Your task to perform on an android device: check storage Image 0: 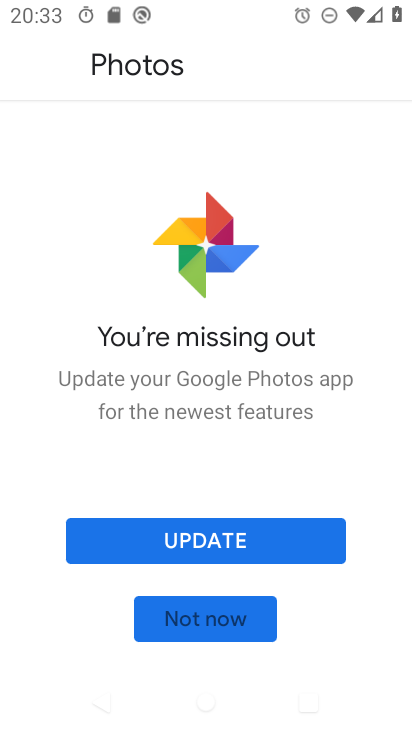
Step 0: press home button
Your task to perform on an android device: check storage Image 1: 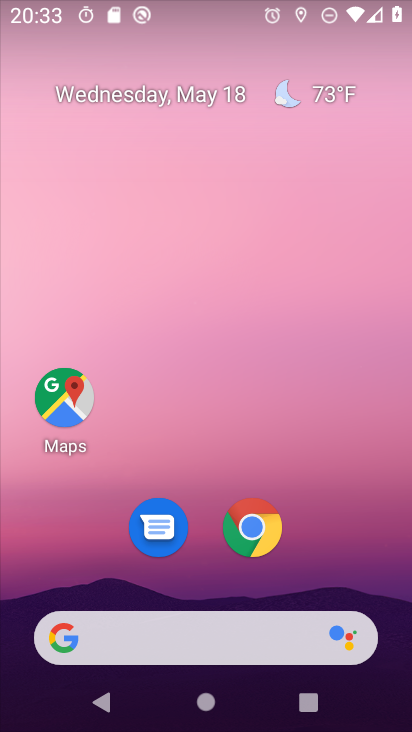
Step 1: drag from (403, 597) to (393, 216)
Your task to perform on an android device: check storage Image 2: 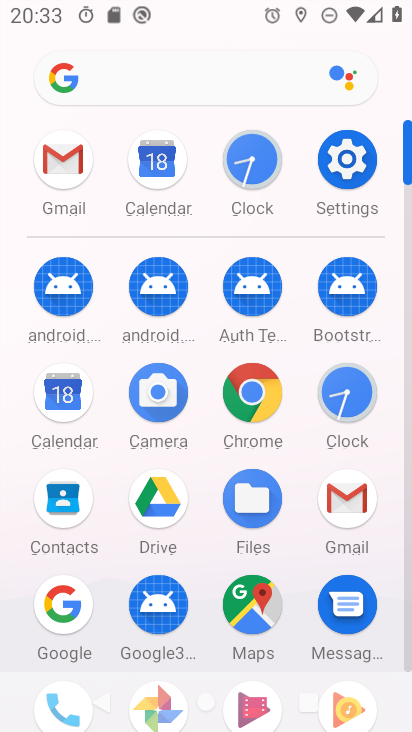
Step 2: click (356, 163)
Your task to perform on an android device: check storage Image 3: 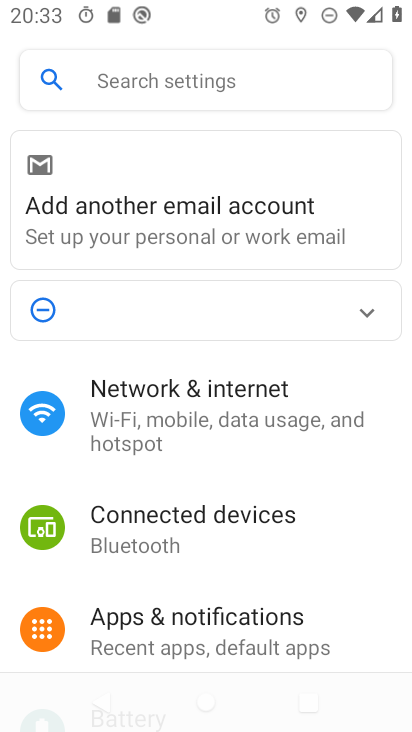
Step 3: drag from (343, 635) to (336, 261)
Your task to perform on an android device: check storage Image 4: 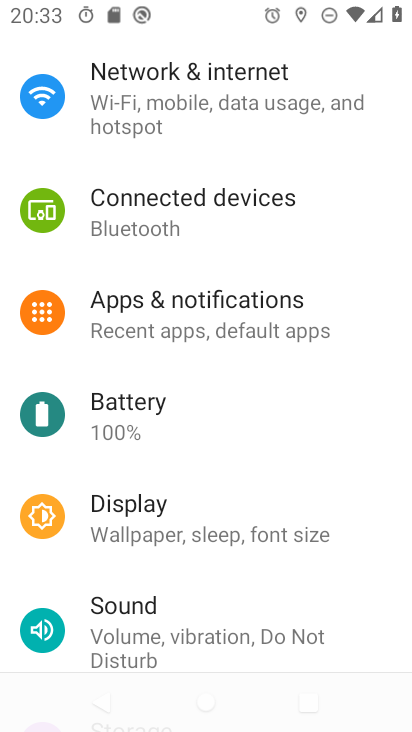
Step 4: drag from (314, 630) to (335, 314)
Your task to perform on an android device: check storage Image 5: 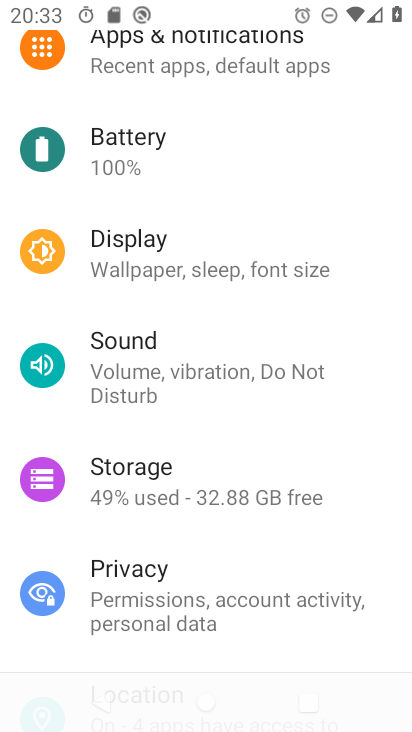
Step 5: click (163, 494)
Your task to perform on an android device: check storage Image 6: 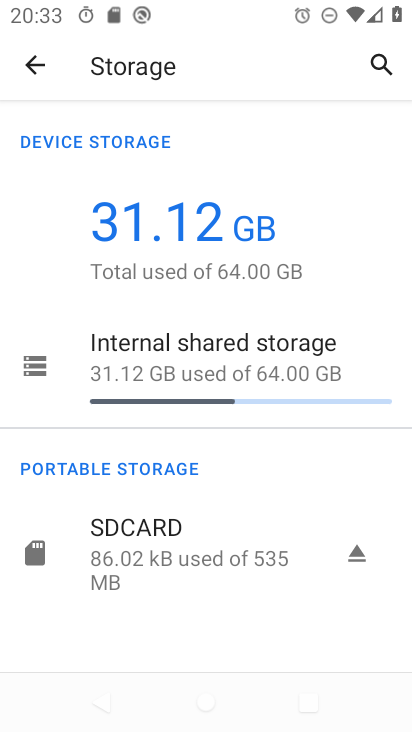
Step 6: task complete